Your task to perform on an android device: Go to Yahoo.com Image 0: 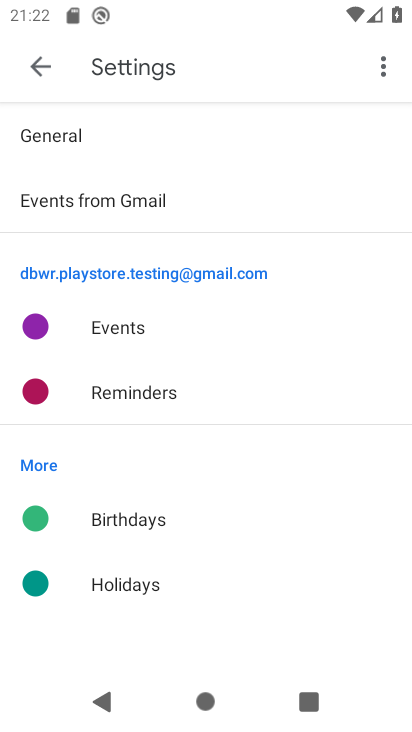
Step 0: press home button
Your task to perform on an android device: Go to Yahoo.com Image 1: 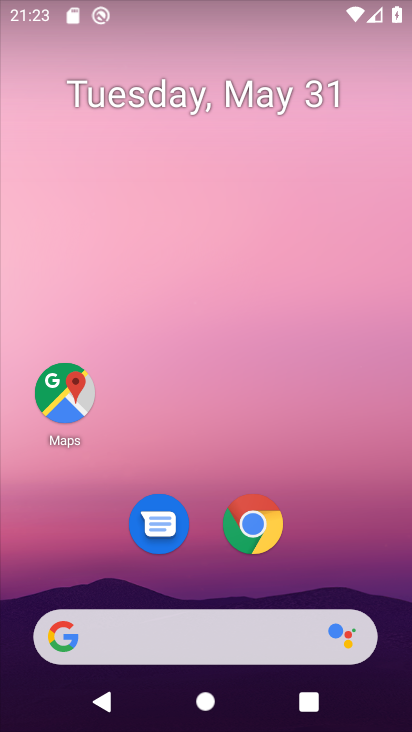
Step 1: click (246, 648)
Your task to perform on an android device: Go to Yahoo.com Image 2: 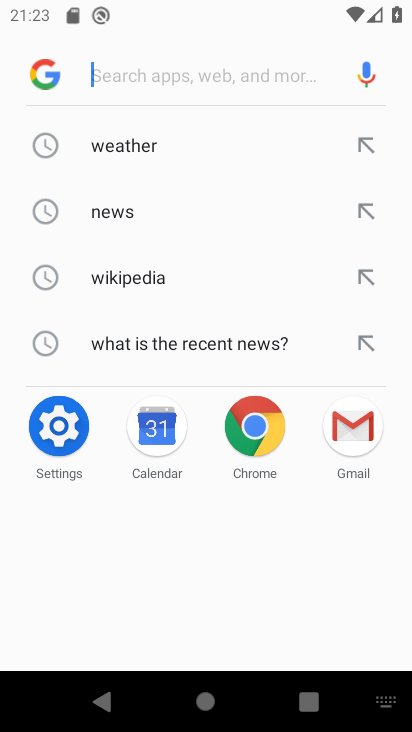
Step 2: type "yahoo.com"
Your task to perform on an android device: Go to Yahoo.com Image 3: 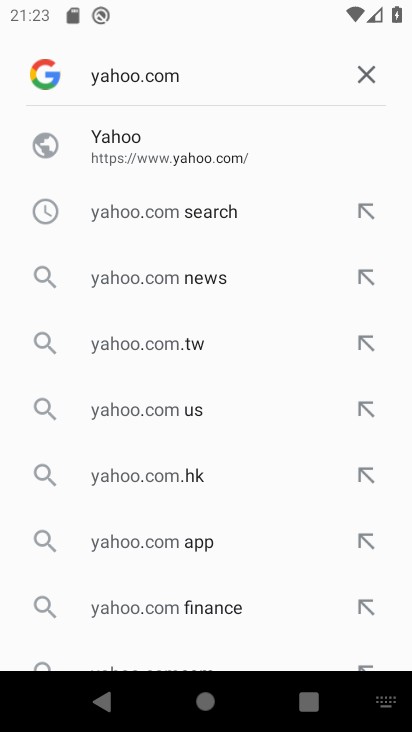
Step 3: click (134, 152)
Your task to perform on an android device: Go to Yahoo.com Image 4: 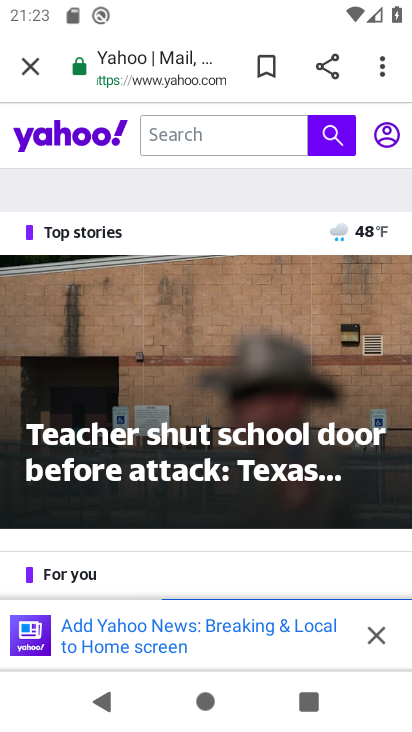
Step 4: task complete